Your task to perform on an android device: install app "Pandora - Music & Podcasts" Image 0: 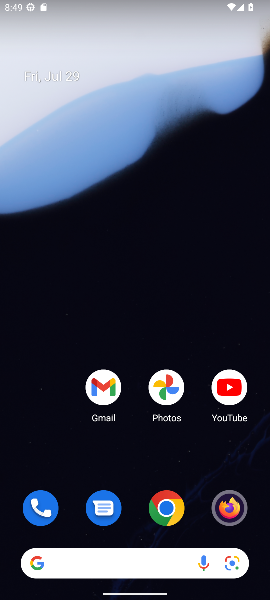
Step 0: drag from (150, 456) to (150, 178)
Your task to perform on an android device: install app "Pandora - Music & Podcasts" Image 1: 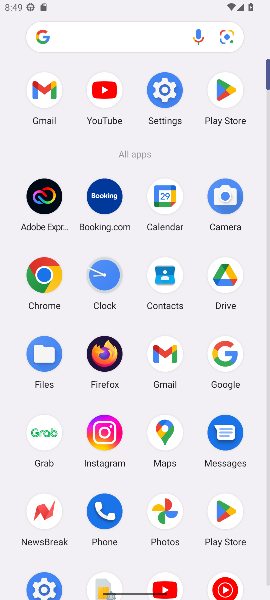
Step 1: click (216, 92)
Your task to perform on an android device: install app "Pandora - Music & Podcasts" Image 2: 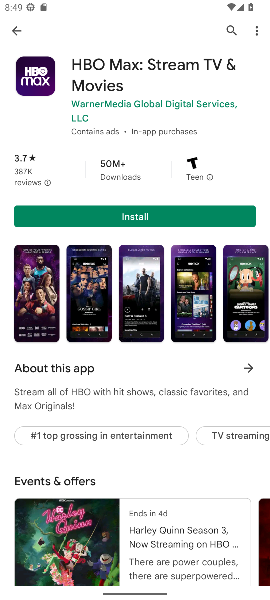
Step 2: click (233, 26)
Your task to perform on an android device: install app "Pandora - Music & Podcasts" Image 3: 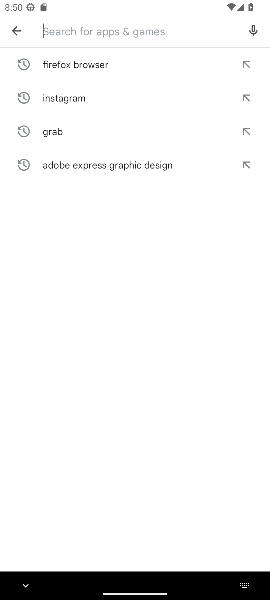
Step 3: type "Pandora - Music & Podcasts"
Your task to perform on an android device: install app "Pandora - Music & Podcasts" Image 4: 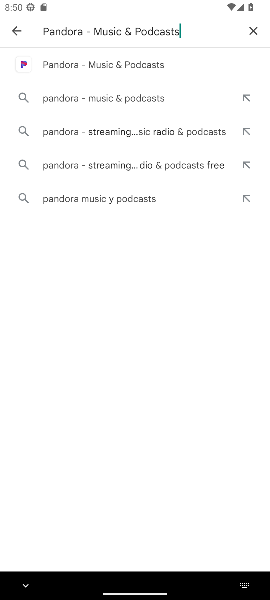
Step 4: click (150, 65)
Your task to perform on an android device: install app "Pandora - Music & Podcasts" Image 5: 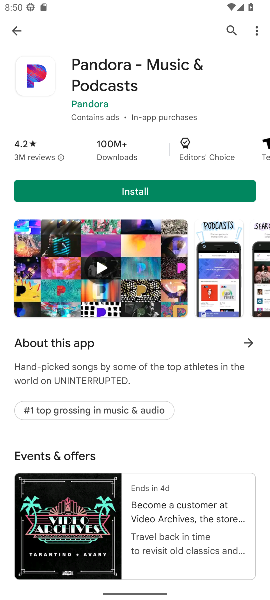
Step 5: click (182, 183)
Your task to perform on an android device: install app "Pandora - Music & Podcasts" Image 6: 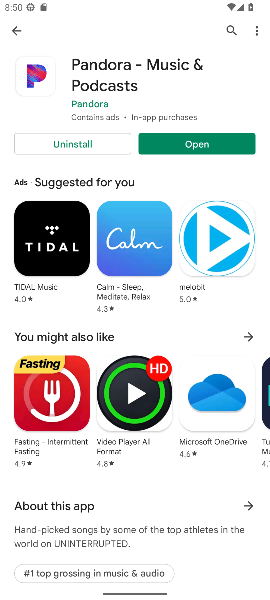
Step 6: task complete